Your task to perform on an android device: turn on airplane mode Image 0: 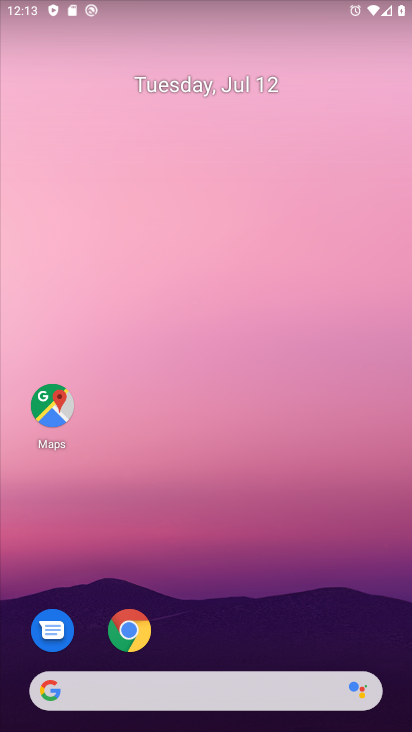
Step 0: drag from (323, 602) to (202, 85)
Your task to perform on an android device: turn on airplane mode Image 1: 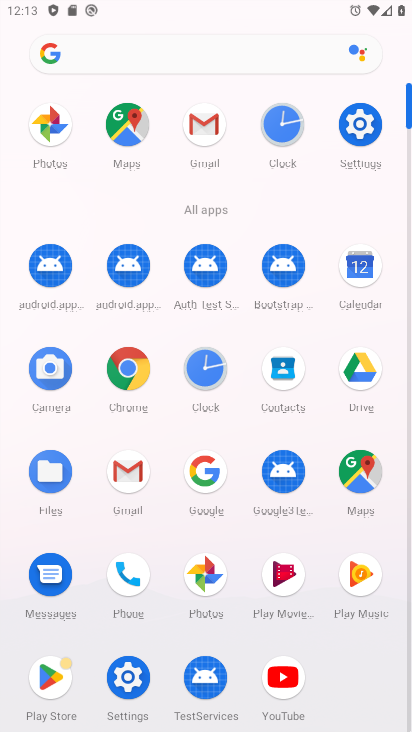
Step 1: click (128, 681)
Your task to perform on an android device: turn on airplane mode Image 2: 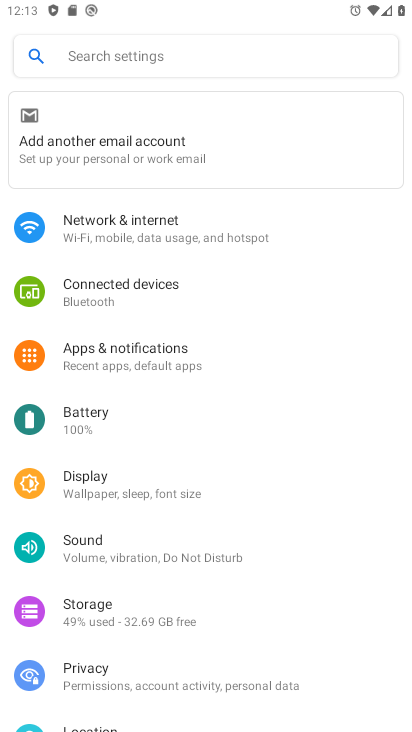
Step 2: click (105, 207)
Your task to perform on an android device: turn on airplane mode Image 3: 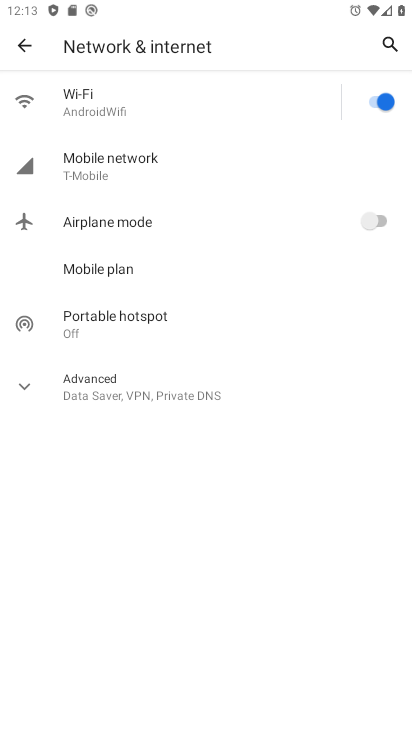
Step 3: click (382, 224)
Your task to perform on an android device: turn on airplane mode Image 4: 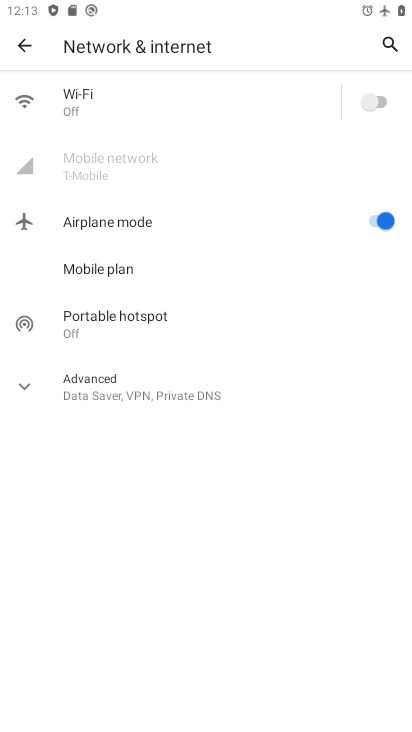
Step 4: task complete